Your task to perform on an android device: Open the Play Movies app and select the watchlist tab. Image 0: 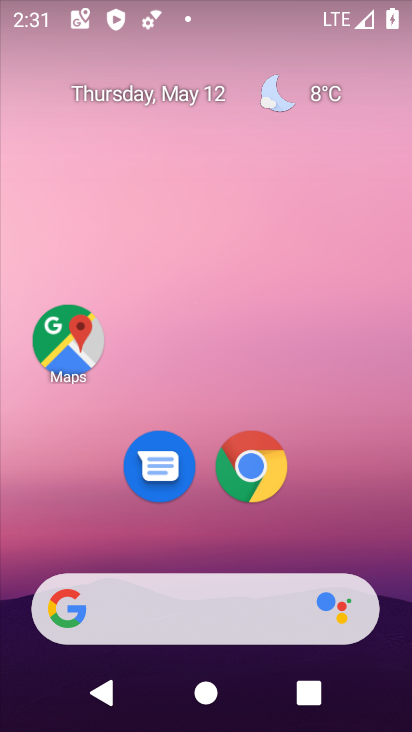
Step 0: drag from (339, 498) to (221, 82)
Your task to perform on an android device: Open the Play Movies app and select the watchlist tab. Image 1: 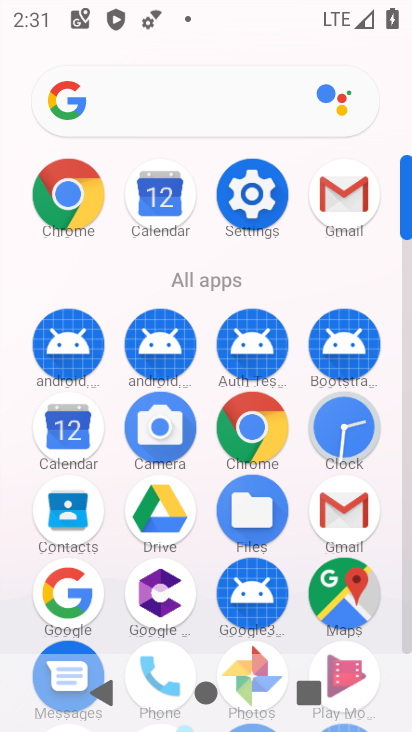
Step 1: drag from (298, 585) to (308, 281)
Your task to perform on an android device: Open the Play Movies app and select the watchlist tab. Image 2: 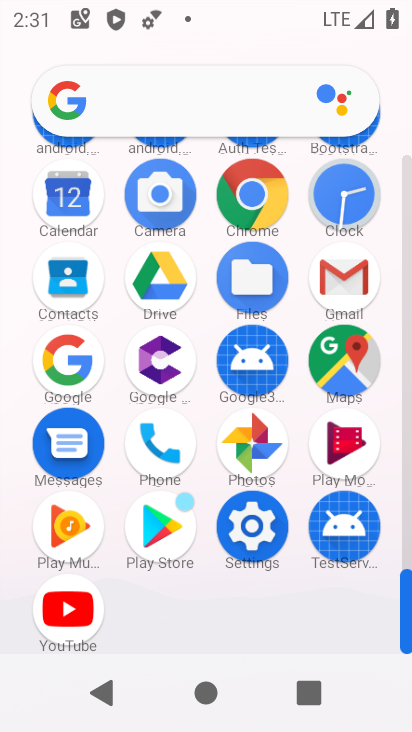
Step 2: click (351, 442)
Your task to perform on an android device: Open the Play Movies app and select the watchlist tab. Image 3: 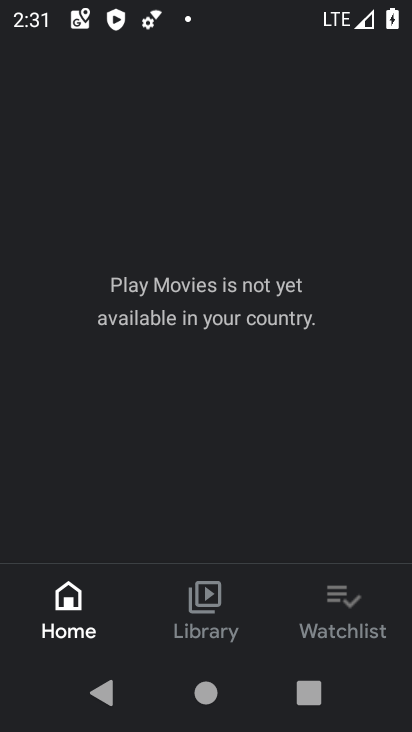
Step 3: click (349, 608)
Your task to perform on an android device: Open the Play Movies app and select the watchlist tab. Image 4: 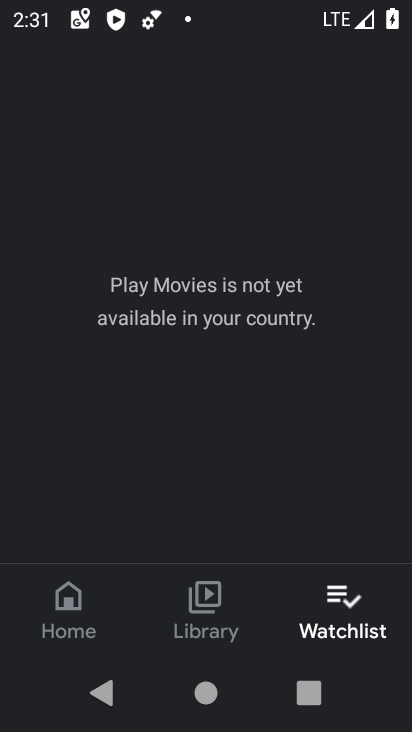
Step 4: task complete